Your task to perform on an android device: turn off translation in the chrome app Image 0: 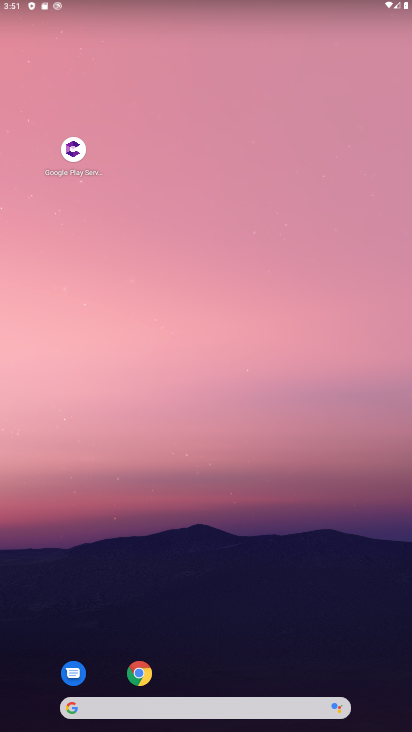
Step 0: click (138, 671)
Your task to perform on an android device: turn off translation in the chrome app Image 1: 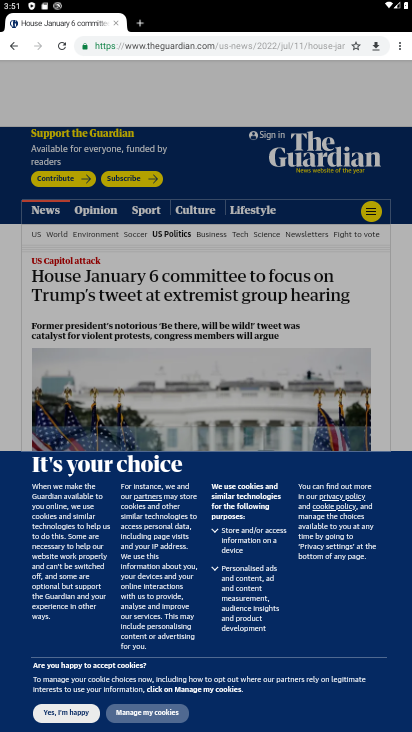
Step 1: click (400, 47)
Your task to perform on an android device: turn off translation in the chrome app Image 2: 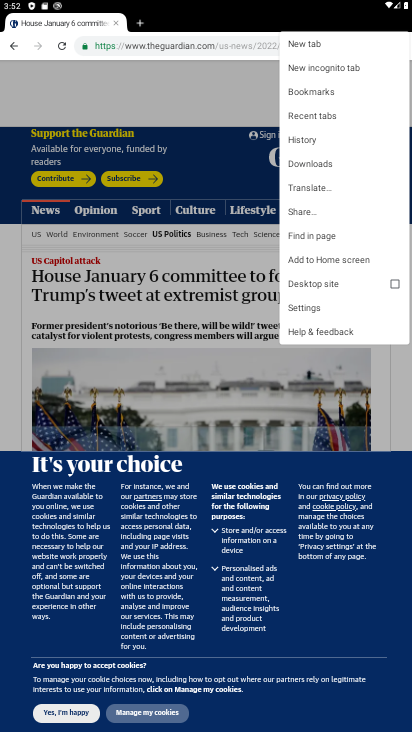
Step 2: click (296, 307)
Your task to perform on an android device: turn off translation in the chrome app Image 3: 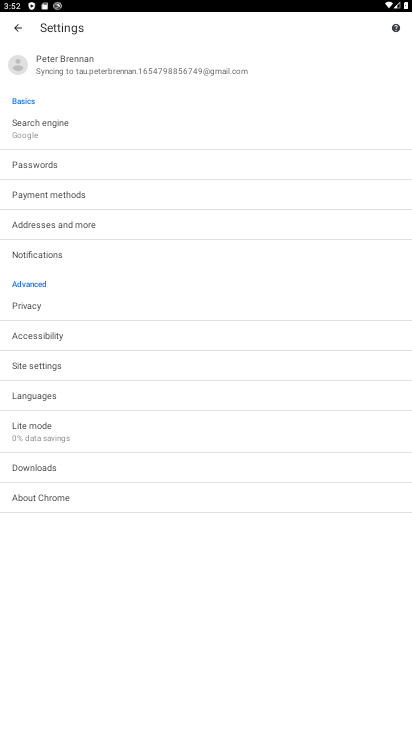
Step 3: click (48, 399)
Your task to perform on an android device: turn off translation in the chrome app Image 4: 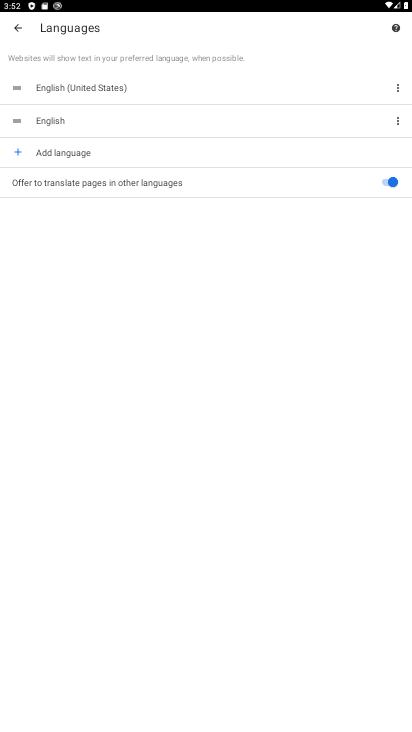
Step 4: click (385, 184)
Your task to perform on an android device: turn off translation in the chrome app Image 5: 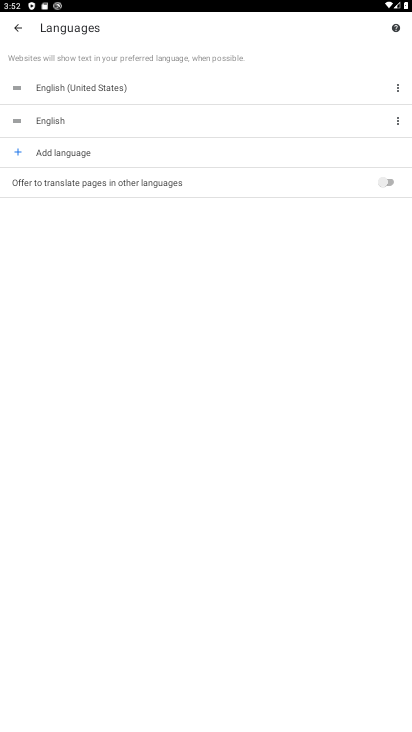
Step 5: task complete